Your task to perform on an android device: Search for pizza restaurants on Maps Image 0: 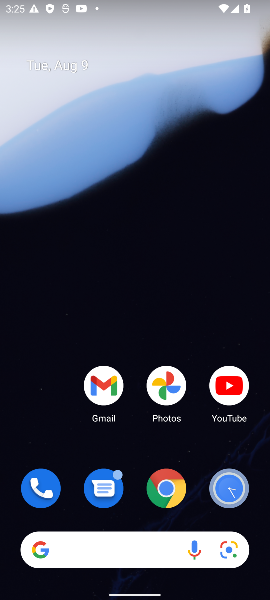
Step 0: drag from (134, 453) to (110, 147)
Your task to perform on an android device: Search for pizza restaurants on Maps Image 1: 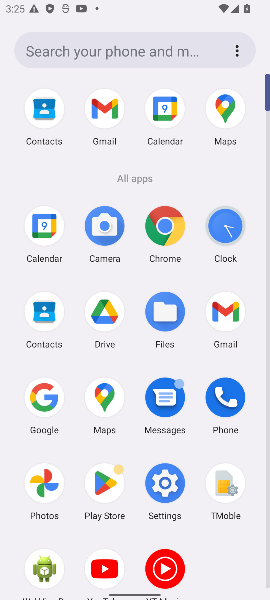
Step 1: click (233, 105)
Your task to perform on an android device: Search for pizza restaurants on Maps Image 2: 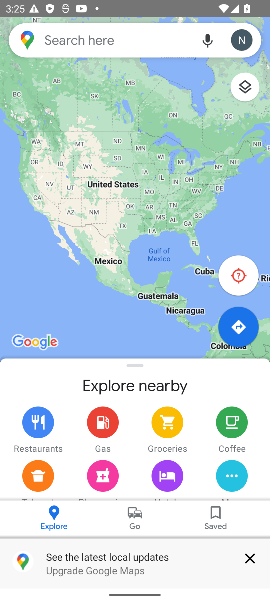
Step 2: click (119, 36)
Your task to perform on an android device: Search for pizza restaurants on Maps Image 3: 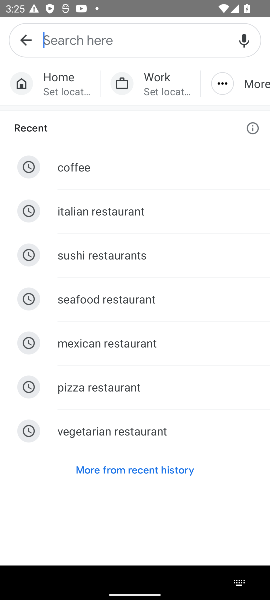
Step 3: click (109, 396)
Your task to perform on an android device: Search for pizza restaurants on Maps Image 4: 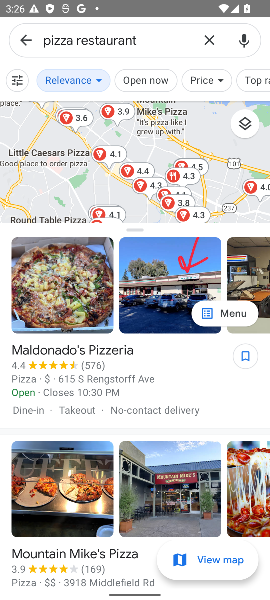
Step 4: task complete